Your task to perform on an android device: Open Google Image 0: 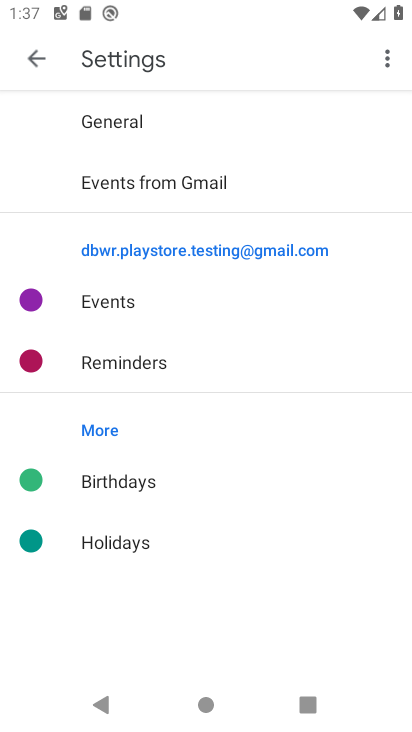
Step 0: press home button
Your task to perform on an android device: Open Google Image 1: 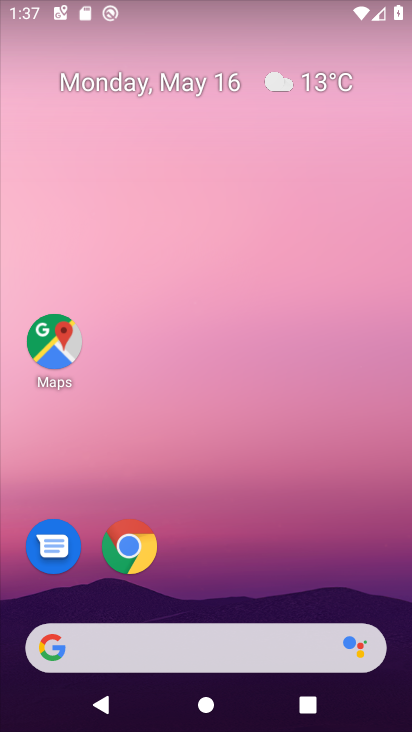
Step 1: drag from (230, 721) to (212, 121)
Your task to perform on an android device: Open Google Image 2: 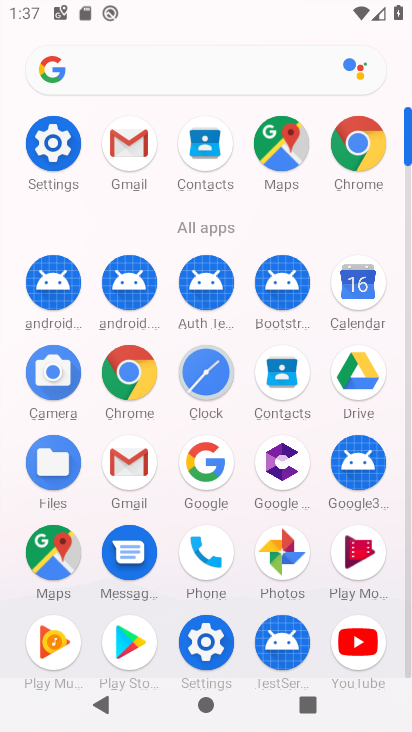
Step 2: click (205, 459)
Your task to perform on an android device: Open Google Image 3: 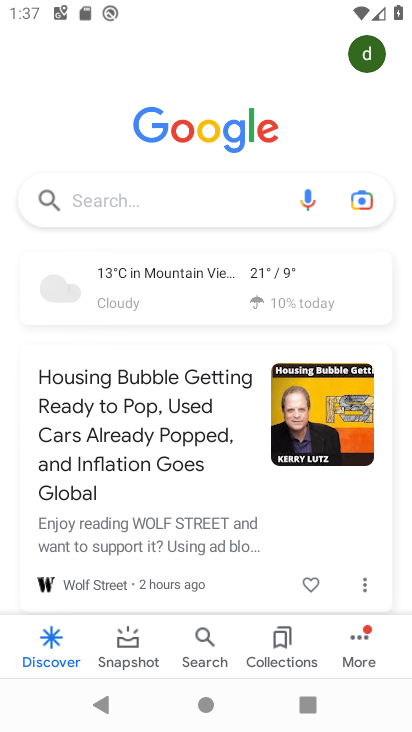
Step 3: task complete